Your task to perform on an android device: allow notifications from all sites in the chrome app Image 0: 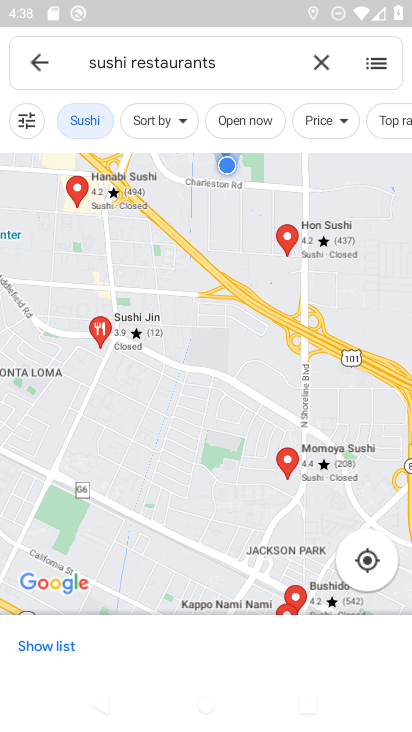
Step 0: drag from (137, 406) to (106, 126)
Your task to perform on an android device: allow notifications from all sites in the chrome app Image 1: 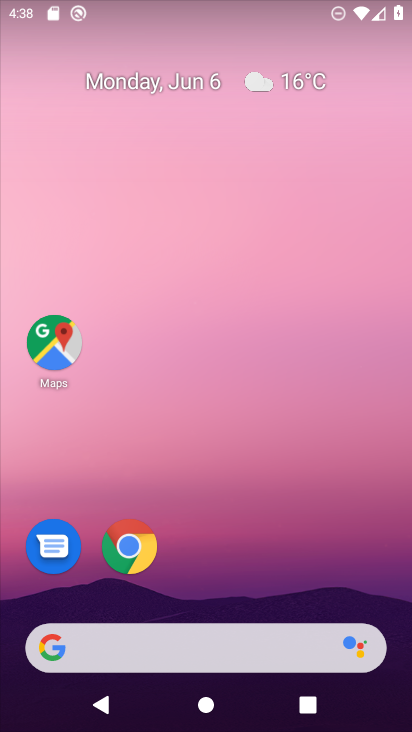
Step 1: drag from (219, 590) to (208, 163)
Your task to perform on an android device: allow notifications from all sites in the chrome app Image 2: 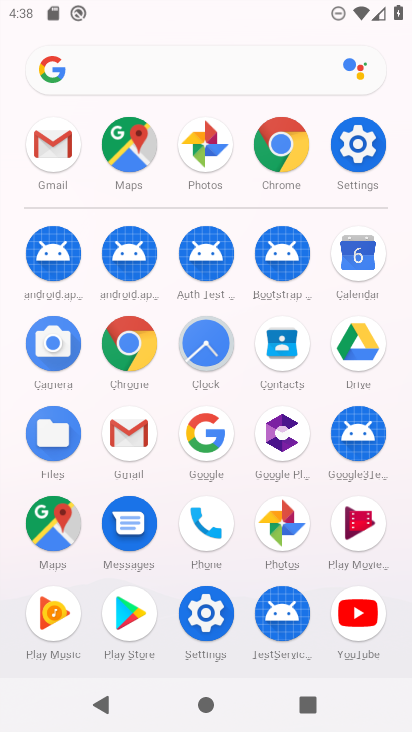
Step 2: click (126, 344)
Your task to perform on an android device: allow notifications from all sites in the chrome app Image 3: 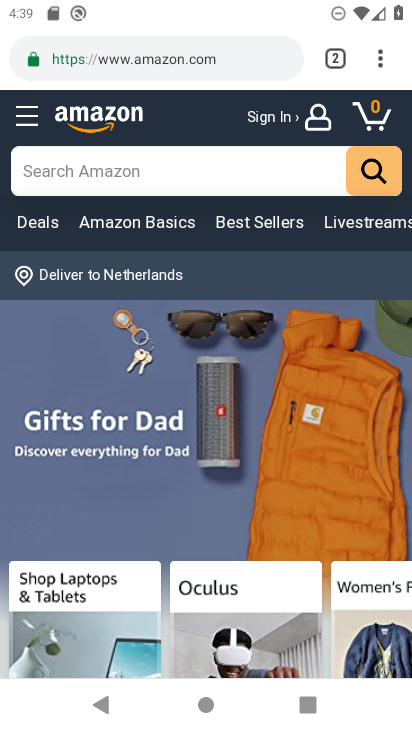
Step 3: drag from (370, 42) to (170, 579)
Your task to perform on an android device: allow notifications from all sites in the chrome app Image 4: 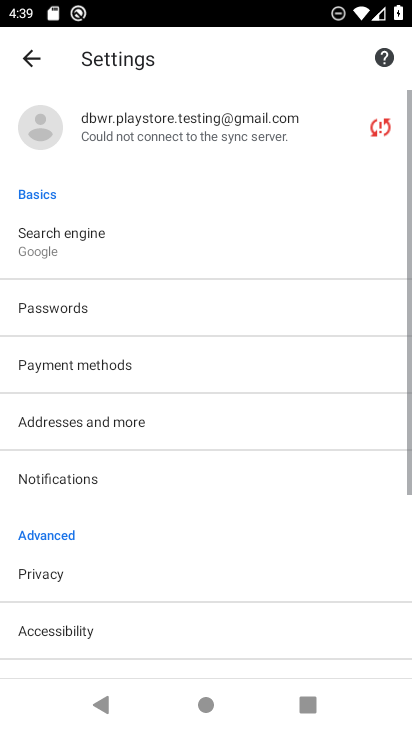
Step 4: drag from (170, 579) to (131, 214)
Your task to perform on an android device: allow notifications from all sites in the chrome app Image 5: 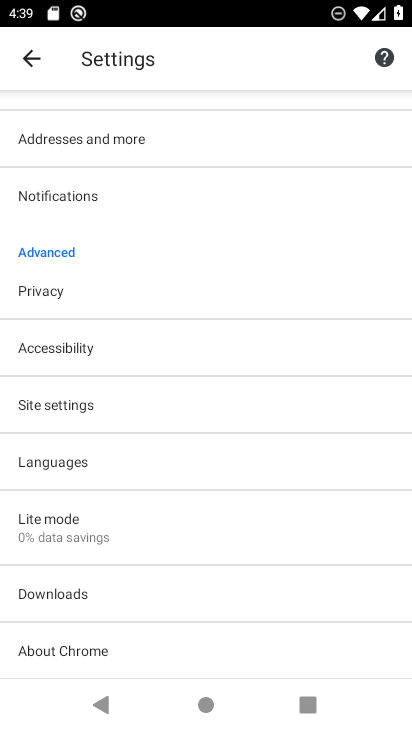
Step 5: click (49, 414)
Your task to perform on an android device: allow notifications from all sites in the chrome app Image 6: 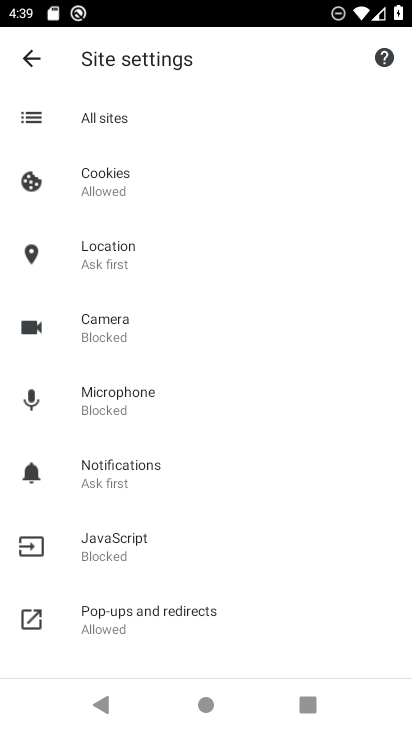
Step 6: click (85, 467)
Your task to perform on an android device: allow notifications from all sites in the chrome app Image 7: 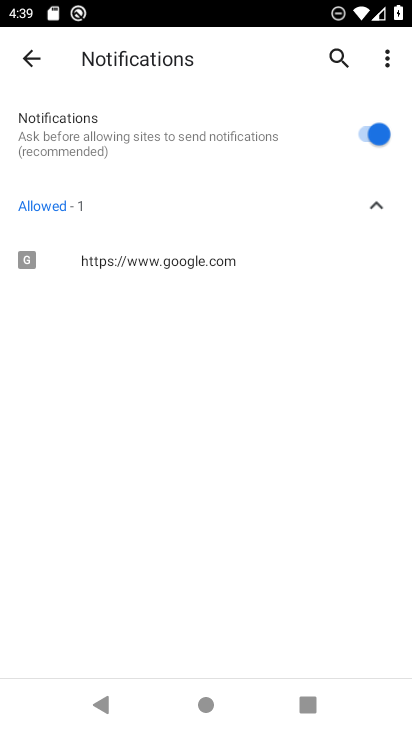
Step 7: task complete